Your task to perform on an android device: Add "acer nitro" to the cart on newegg.com Image 0: 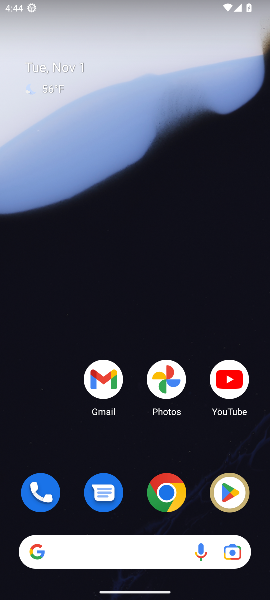
Step 0: click (155, 496)
Your task to perform on an android device: Add "acer nitro" to the cart on newegg.com Image 1: 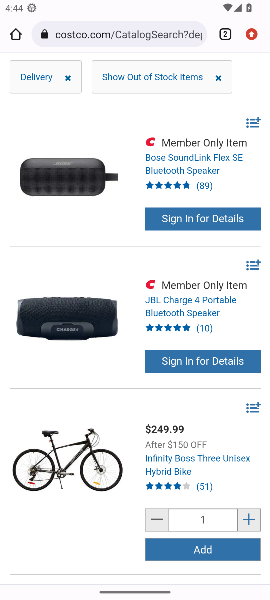
Step 1: click (166, 36)
Your task to perform on an android device: Add "acer nitro" to the cart on newegg.com Image 2: 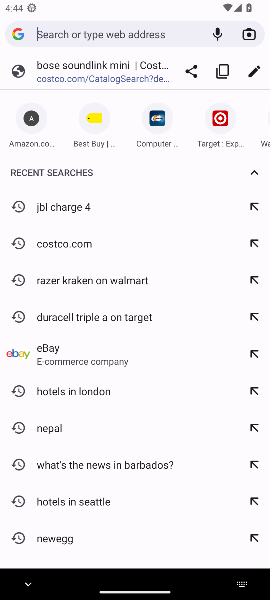
Step 2: click (152, 120)
Your task to perform on an android device: Add "acer nitro" to the cart on newegg.com Image 3: 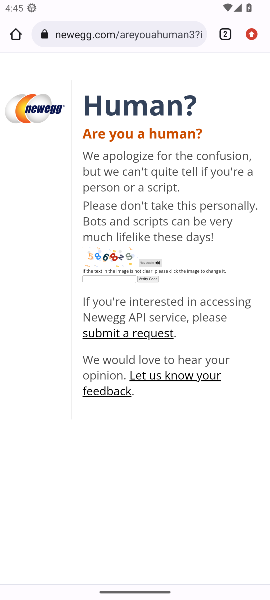
Step 3: click (150, 470)
Your task to perform on an android device: Add "acer nitro" to the cart on newegg.com Image 4: 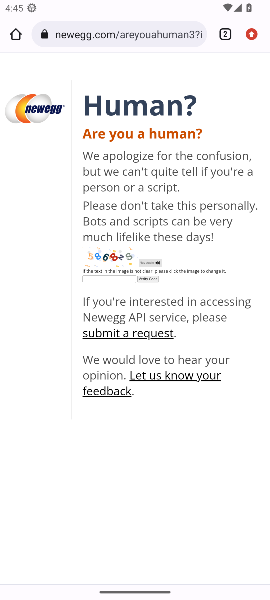
Step 4: click (134, 31)
Your task to perform on an android device: Add "acer nitro" to the cart on newegg.com Image 5: 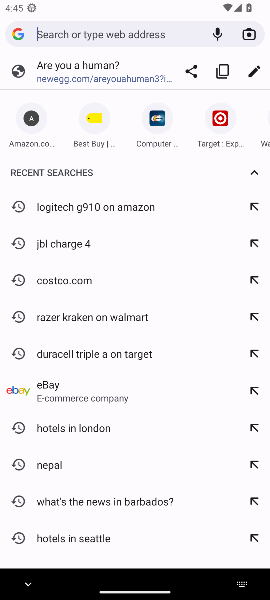
Step 5: type "newengg.com"
Your task to perform on an android device: Add "acer nitro" to the cart on newegg.com Image 6: 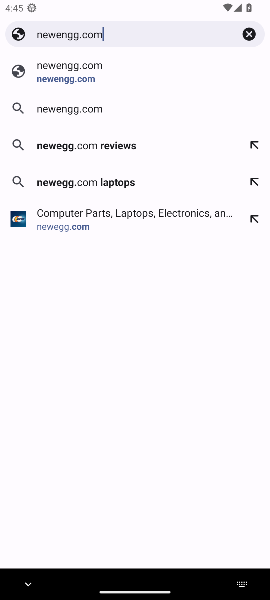
Step 6: press enter
Your task to perform on an android device: Add "acer nitro" to the cart on newegg.com Image 7: 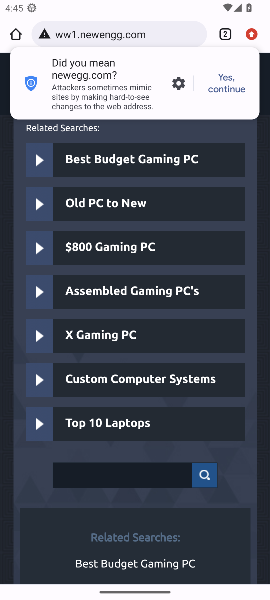
Step 7: press back button
Your task to perform on an android device: Add "acer nitro" to the cart on newegg.com Image 8: 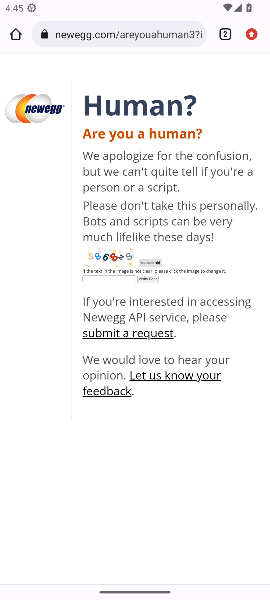
Step 8: click (143, 277)
Your task to perform on an android device: Add "acer nitro" to the cart on newegg.com Image 9: 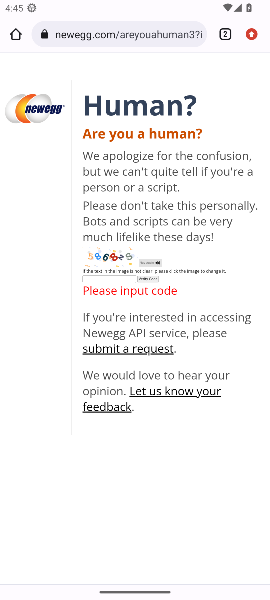
Step 9: drag from (180, 353) to (82, 278)
Your task to perform on an android device: Add "acer nitro" to the cart on newegg.com Image 10: 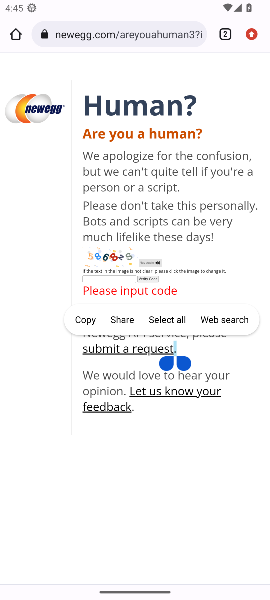
Step 10: click (91, 276)
Your task to perform on an android device: Add "acer nitro" to the cart on newegg.com Image 11: 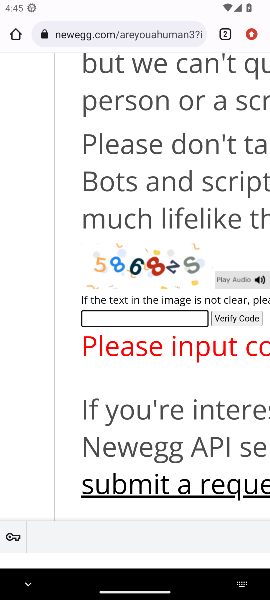
Step 11: drag from (11, 317) to (174, 323)
Your task to perform on an android device: Add "acer nitro" to the cart on newegg.com Image 12: 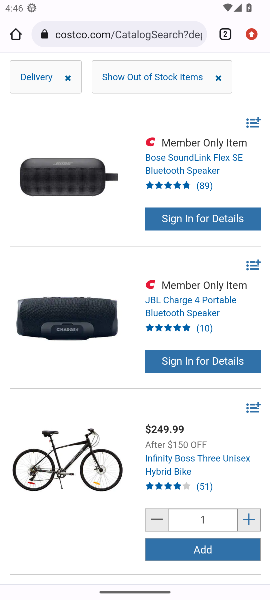
Step 12: type "58"
Your task to perform on an android device: Add "acer nitro" to the cart on newegg.com Image 13: 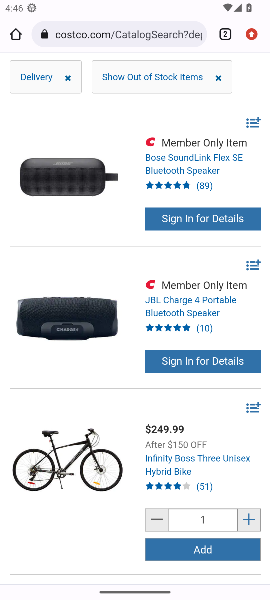
Step 13: click (87, 32)
Your task to perform on an android device: Add "acer nitro" to the cart on newegg.com Image 14: 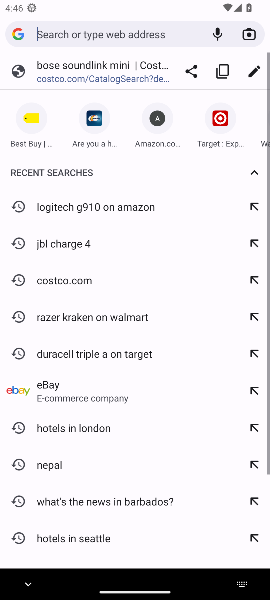
Step 14: click (87, 112)
Your task to perform on an android device: Add "acer nitro" to the cart on newegg.com Image 15: 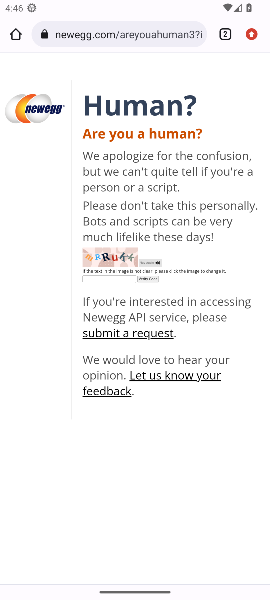
Step 15: click (108, 277)
Your task to perform on an android device: Add "acer nitro" to the cart on newegg.com Image 16: 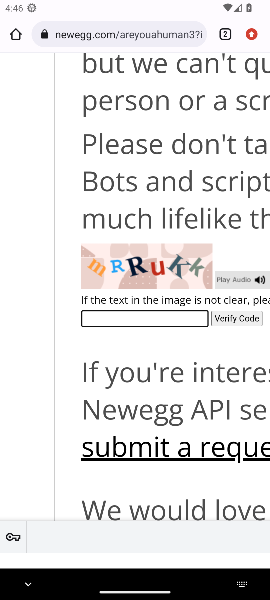
Step 16: type "mRRuKk"
Your task to perform on an android device: Add "acer nitro" to the cart on newegg.com Image 17: 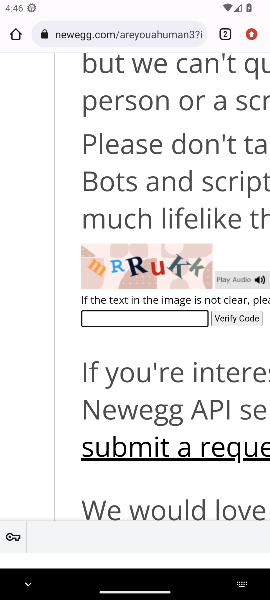
Step 17: type ""
Your task to perform on an android device: Add "acer nitro" to the cart on newegg.com Image 18: 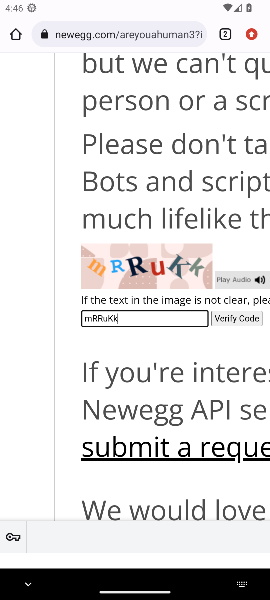
Step 18: click (232, 319)
Your task to perform on an android device: Add "acer nitro" to the cart on newegg.com Image 19: 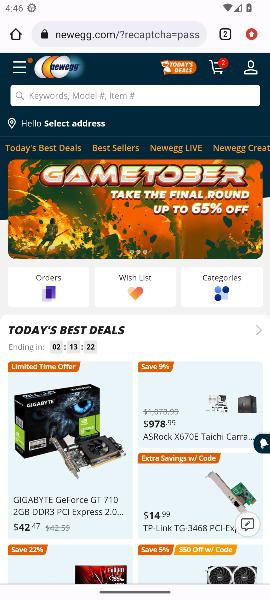
Step 19: click (112, 101)
Your task to perform on an android device: Add "acer nitro" to the cart on newegg.com Image 20: 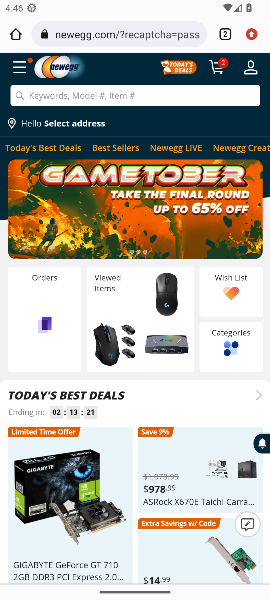
Step 20: drag from (225, 457) to (261, 313)
Your task to perform on an android device: Add "acer nitro" to the cart on newegg.com Image 21: 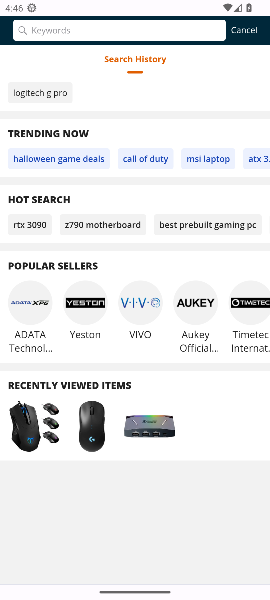
Step 21: type "acer nitro"
Your task to perform on an android device: Add "acer nitro" to the cart on newegg.com Image 22: 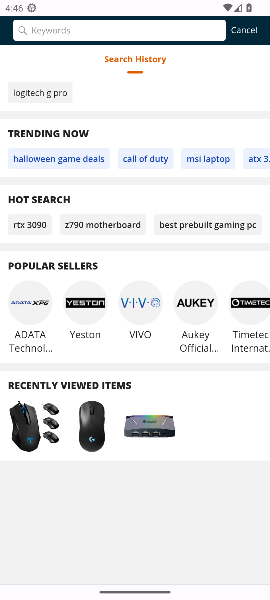
Step 22: type ""
Your task to perform on an android device: Add "acer nitro" to the cart on newegg.com Image 23: 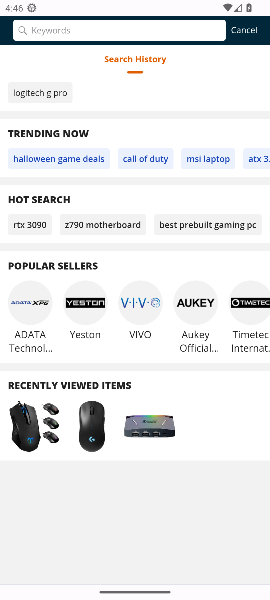
Step 23: click (126, 31)
Your task to perform on an android device: Add "acer nitro" to the cart on newegg.com Image 24: 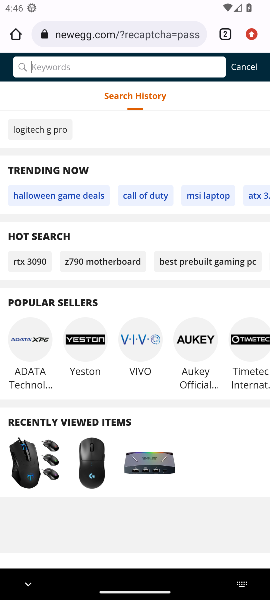
Step 24: type "acer nitro"
Your task to perform on an android device: Add "acer nitro" to the cart on newegg.com Image 25: 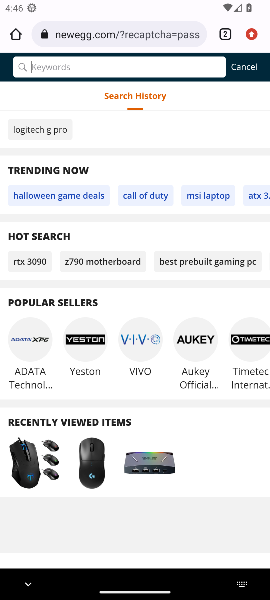
Step 25: type ""
Your task to perform on an android device: Add "acer nitro" to the cart on newegg.com Image 26: 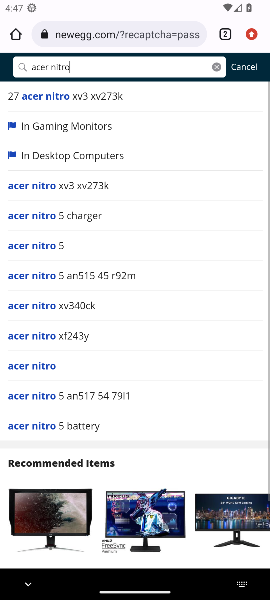
Step 26: press enter
Your task to perform on an android device: Add "acer nitro" to the cart on newegg.com Image 27: 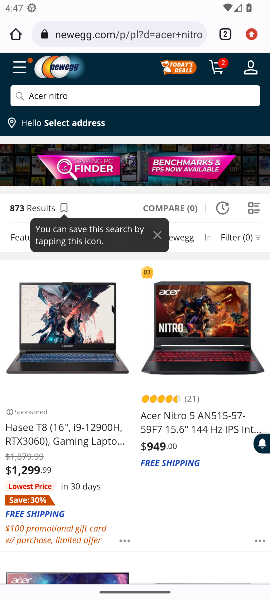
Step 27: click (188, 329)
Your task to perform on an android device: Add "acer nitro" to the cart on newegg.com Image 28: 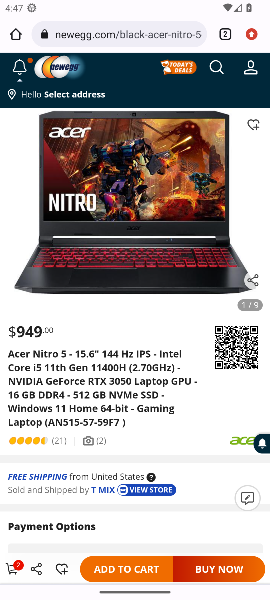
Step 28: click (114, 571)
Your task to perform on an android device: Add "acer nitro" to the cart on newegg.com Image 29: 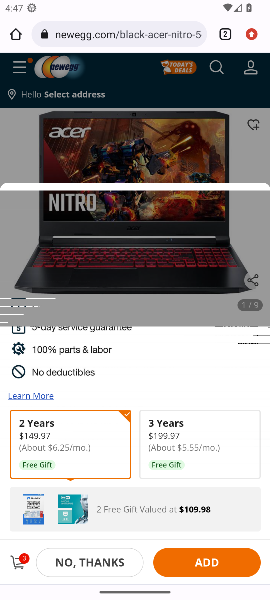
Step 29: click (209, 551)
Your task to perform on an android device: Add "acer nitro" to the cart on newegg.com Image 30: 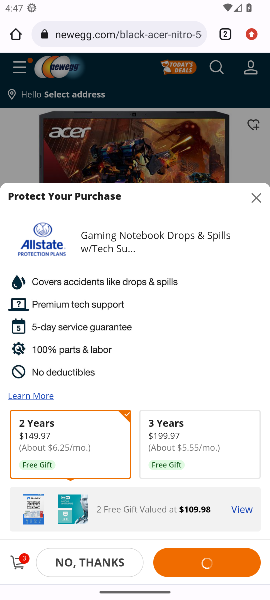
Step 30: click (209, 551)
Your task to perform on an android device: Add "acer nitro" to the cart on newegg.com Image 31: 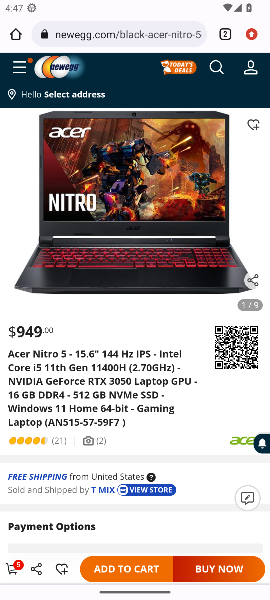
Step 31: drag from (196, 505) to (208, 297)
Your task to perform on an android device: Add "acer nitro" to the cart on newegg.com Image 32: 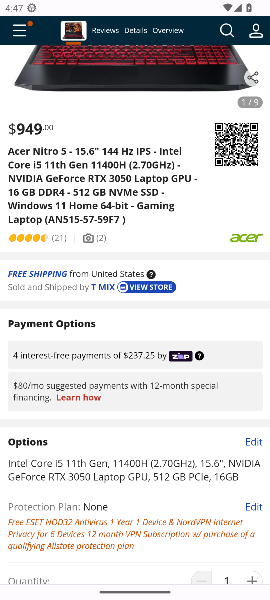
Step 32: drag from (179, 227) to (152, 513)
Your task to perform on an android device: Add "acer nitro" to the cart on newegg.com Image 33: 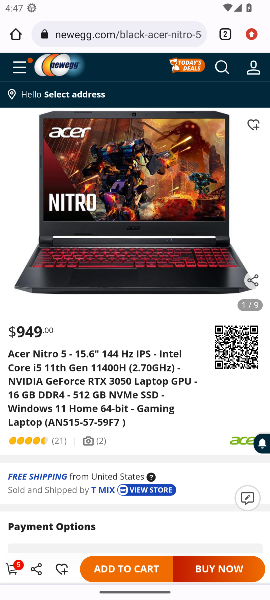
Step 33: click (127, 575)
Your task to perform on an android device: Add "acer nitro" to the cart on newegg.com Image 34: 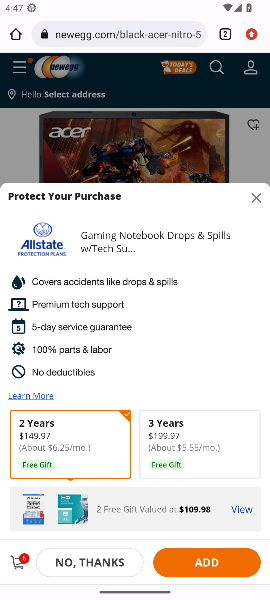
Step 34: click (120, 558)
Your task to perform on an android device: Add "acer nitro" to the cart on newegg.com Image 35: 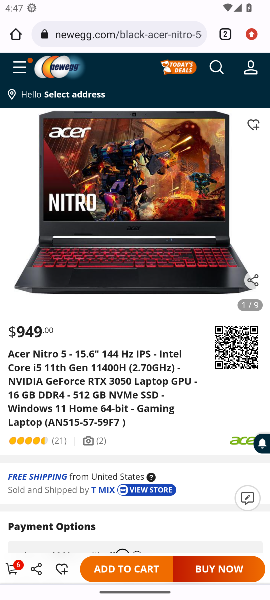
Step 35: click (120, 558)
Your task to perform on an android device: Add "acer nitro" to the cart on newegg.com Image 36: 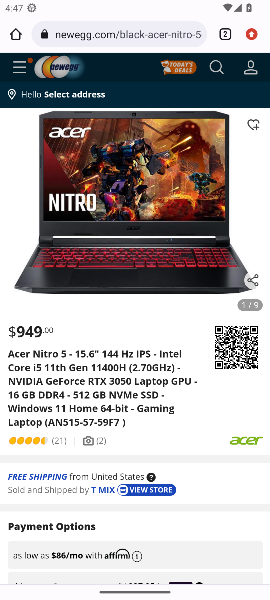
Step 36: click (16, 564)
Your task to perform on an android device: Add "acer nitro" to the cart on newegg.com Image 37: 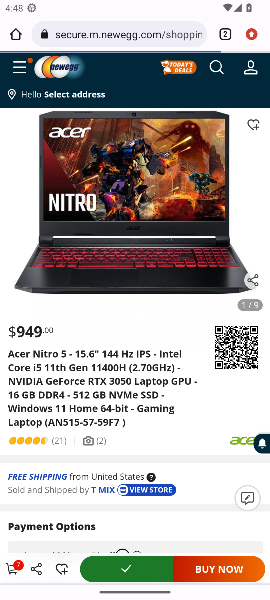
Step 37: click (16, 564)
Your task to perform on an android device: Add "acer nitro" to the cart on newegg.com Image 38: 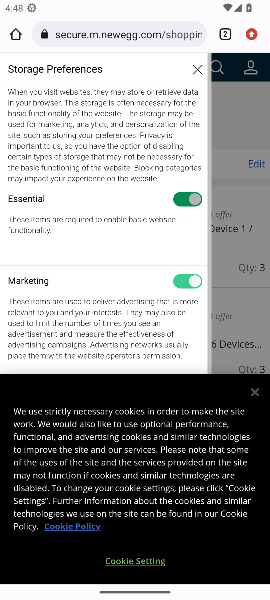
Step 38: click (201, 71)
Your task to perform on an android device: Add "acer nitro" to the cart on newegg.com Image 39: 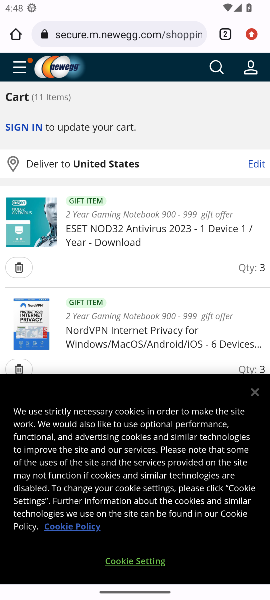
Step 39: click (261, 393)
Your task to perform on an android device: Add "acer nitro" to the cart on newegg.com Image 40: 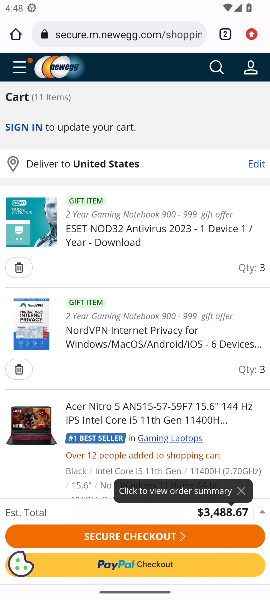
Step 40: drag from (214, 412) to (226, 168)
Your task to perform on an android device: Add "acer nitro" to the cart on newegg.com Image 41: 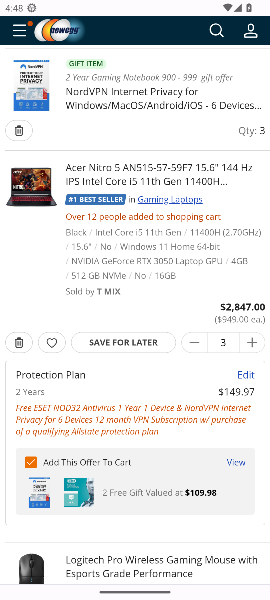
Step 41: drag from (205, 288) to (191, 455)
Your task to perform on an android device: Add "acer nitro" to the cart on newegg.com Image 42: 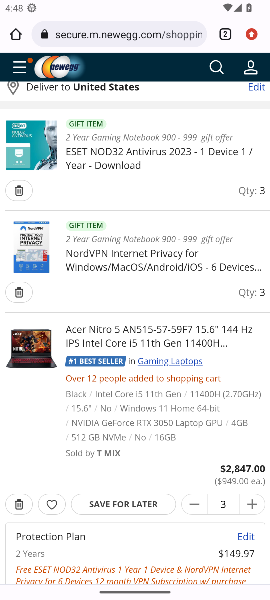
Step 42: drag from (154, 553) to (213, 139)
Your task to perform on an android device: Add "acer nitro" to the cart on newegg.com Image 43: 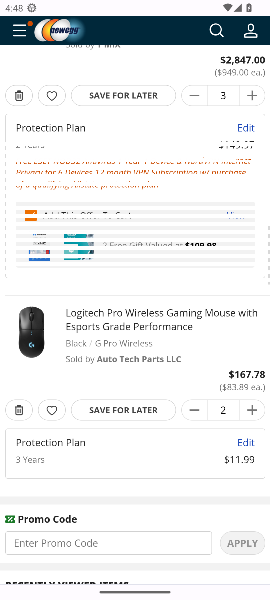
Step 43: drag from (198, 506) to (212, 209)
Your task to perform on an android device: Add "acer nitro" to the cart on newegg.com Image 44: 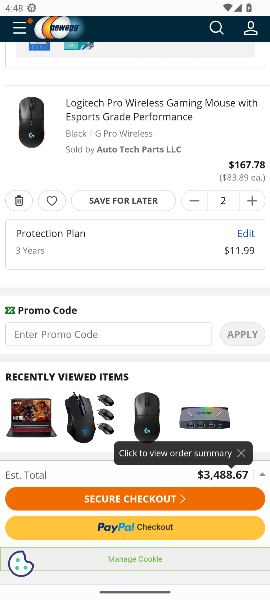
Step 44: drag from (185, 479) to (181, 179)
Your task to perform on an android device: Add "acer nitro" to the cart on newegg.com Image 45: 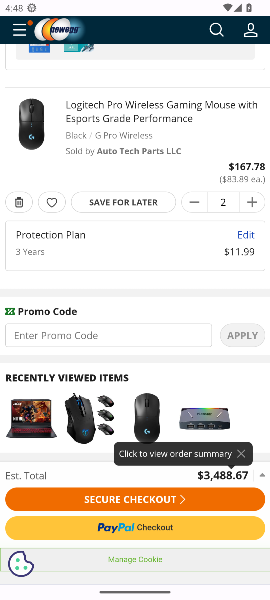
Step 45: click (162, 503)
Your task to perform on an android device: Add "acer nitro" to the cart on newegg.com Image 46: 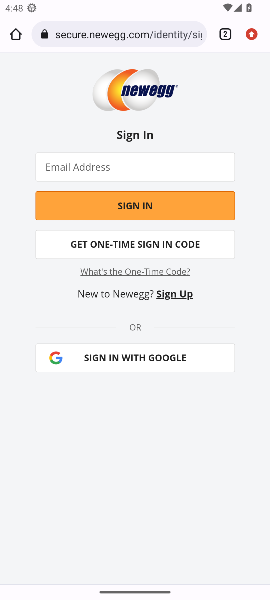
Step 46: task complete